Your task to perform on an android device: Go to location settings Image 0: 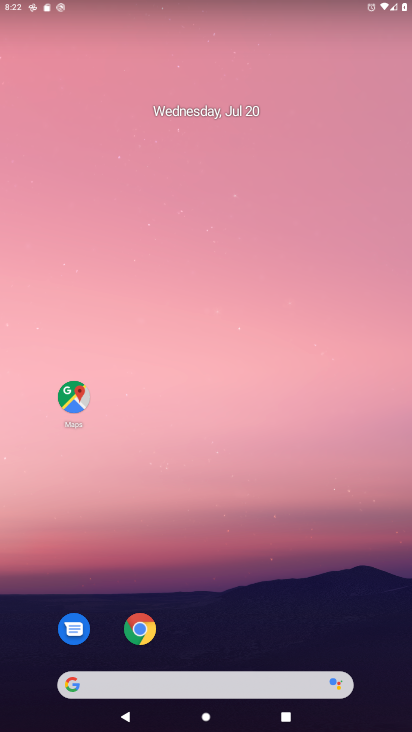
Step 0: drag from (335, 611) to (330, 231)
Your task to perform on an android device: Go to location settings Image 1: 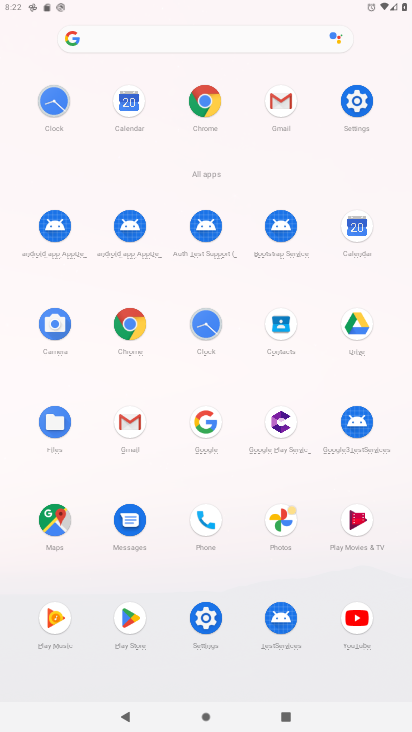
Step 1: click (203, 620)
Your task to perform on an android device: Go to location settings Image 2: 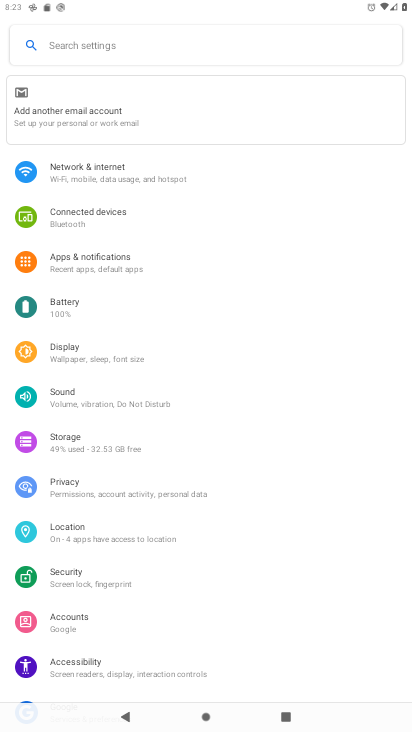
Step 2: click (69, 531)
Your task to perform on an android device: Go to location settings Image 3: 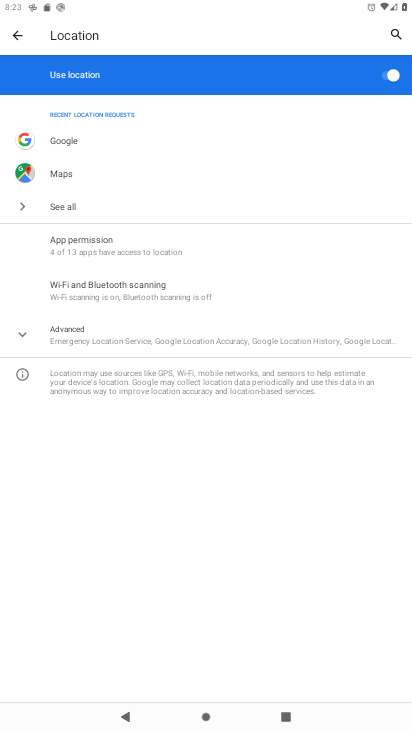
Step 3: task complete